Your task to perform on an android device: Go to Google maps Image 0: 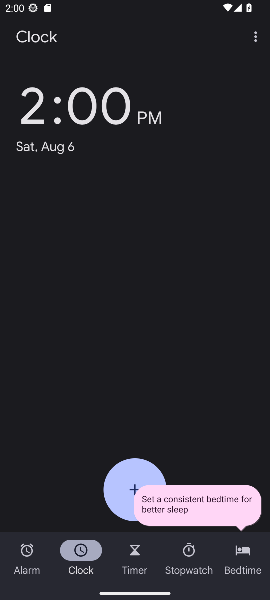
Step 0: press home button
Your task to perform on an android device: Go to Google maps Image 1: 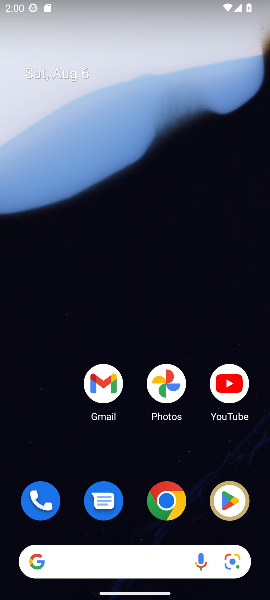
Step 1: drag from (131, 500) to (113, 91)
Your task to perform on an android device: Go to Google maps Image 2: 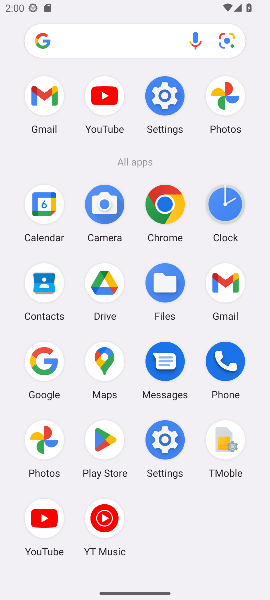
Step 2: click (104, 363)
Your task to perform on an android device: Go to Google maps Image 3: 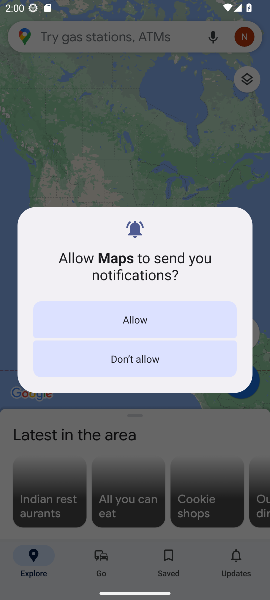
Step 3: click (128, 323)
Your task to perform on an android device: Go to Google maps Image 4: 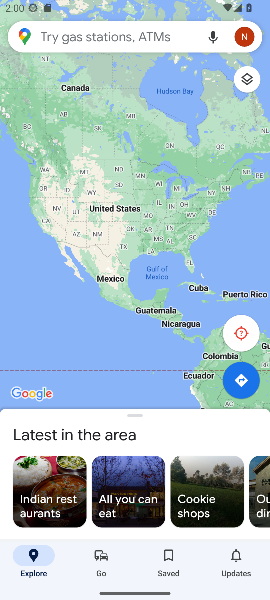
Step 4: task complete